Your task to perform on an android device: see creations saved in the google photos Image 0: 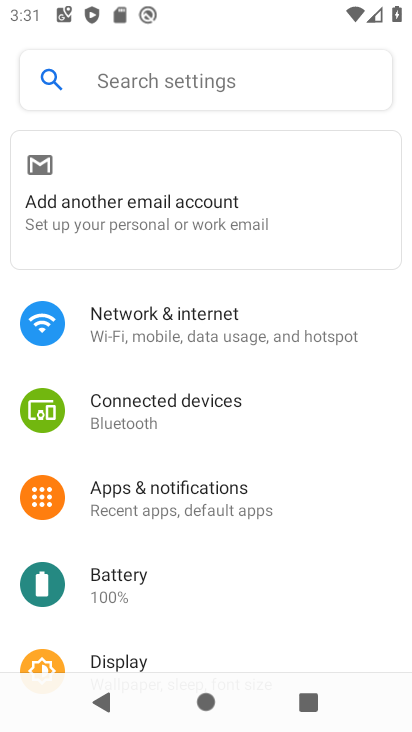
Step 0: drag from (186, 619) to (203, 449)
Your task to perform on an android device: see creations saved in the google photos Image 1: 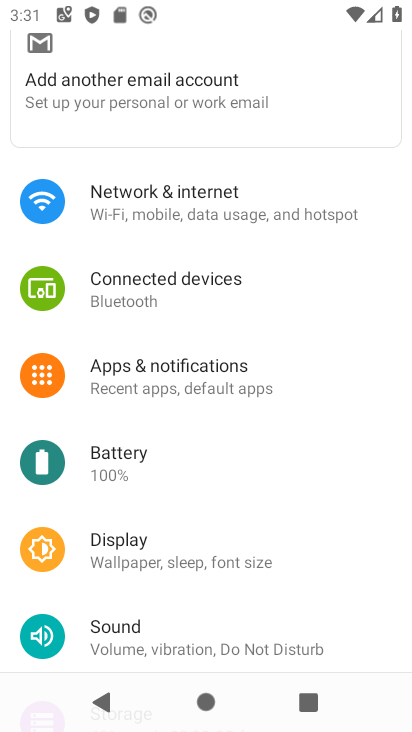
Step 1: press home button
Your task to perform on an android device: see creations saved in the google photos Image 2: 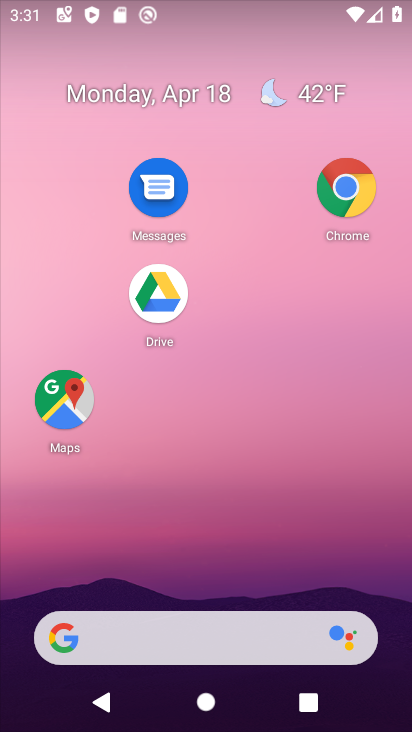
Step 2: drag from (236, 448) to (246, 107)
Your task to perform on an android device: see creations saved in the google photos Image 3: 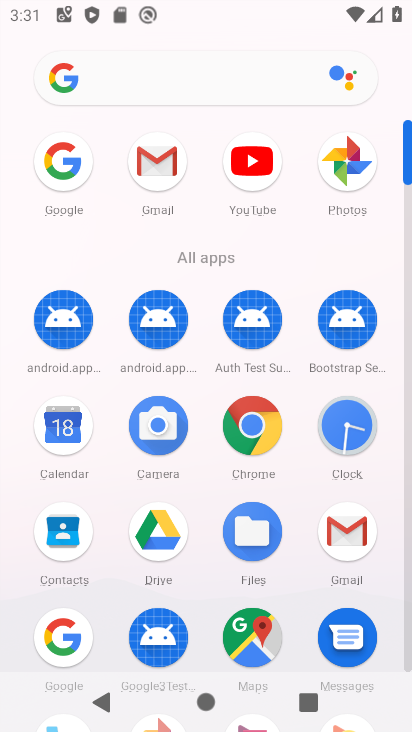
Step 3: click (347, 158)
Your task to perform on an android device: see creations saved in the google photos Image 4: 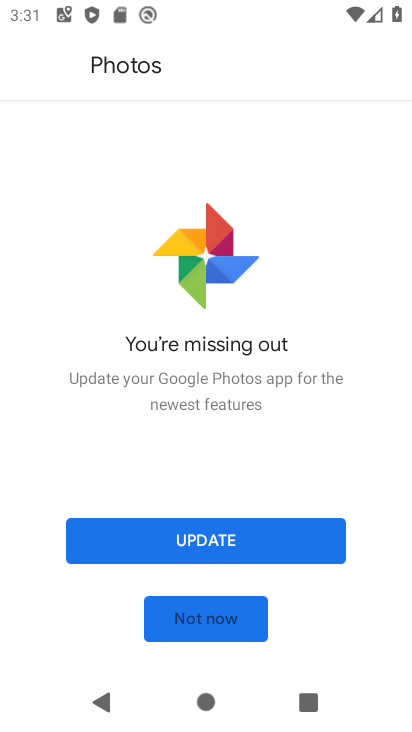
Step 4: click (231, 529)
Your task to perform on an android device: see creations saved in the google photos Image 5: 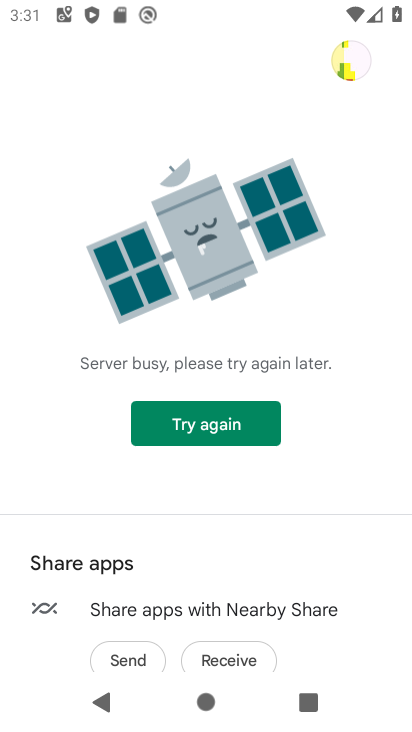
Step 5: click (235, 413)
Your task to perform on an android device: see creations saved in the google photos Image 6: 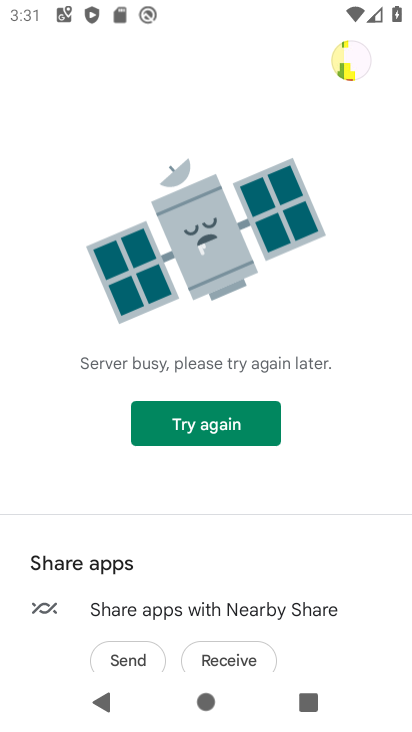
Step 6: press back button
Your task to perform on an android device: see creations saved in the google photos Image 7: 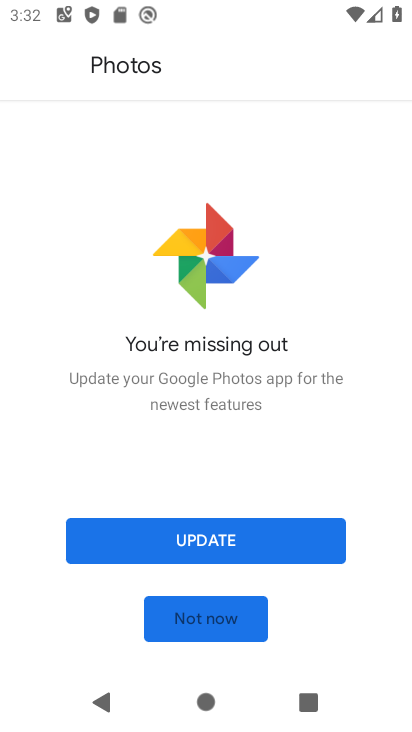
Step 7: click (209, 523)
Your task to perform on an android device: see creations saved in the google photos Image 8: 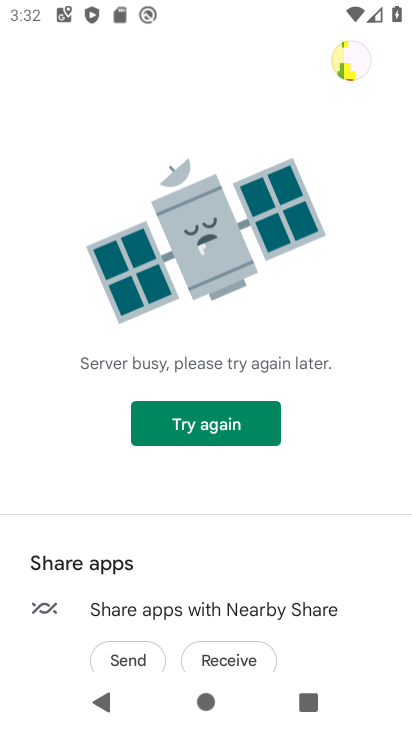
Step 8: click (219, 431)
Your task to perform on an android device: see creations saved in the google photos Image 9: 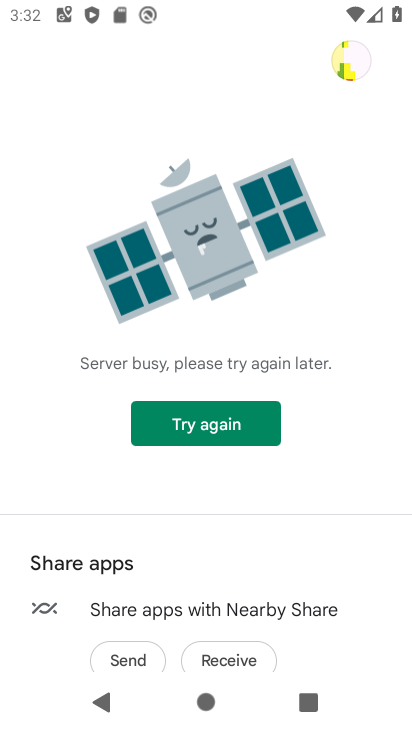
Step 9: click (219, 431)
Your task to perform on an android device: see creations saved in the google photos Image 10: 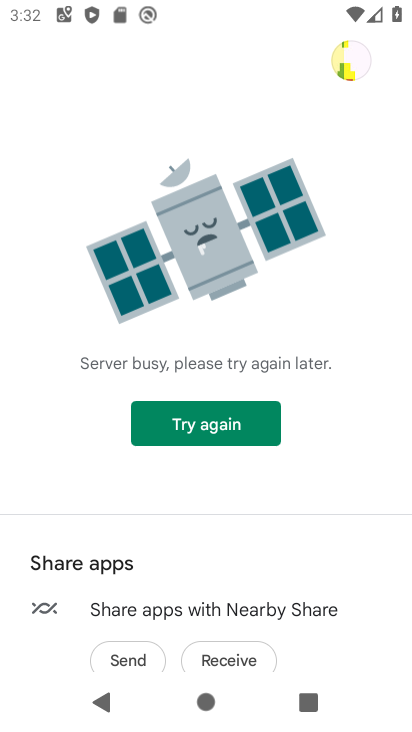
Step 10: task complete